Your task to perform on an android device: delete a single message in the gmail app Image 0: 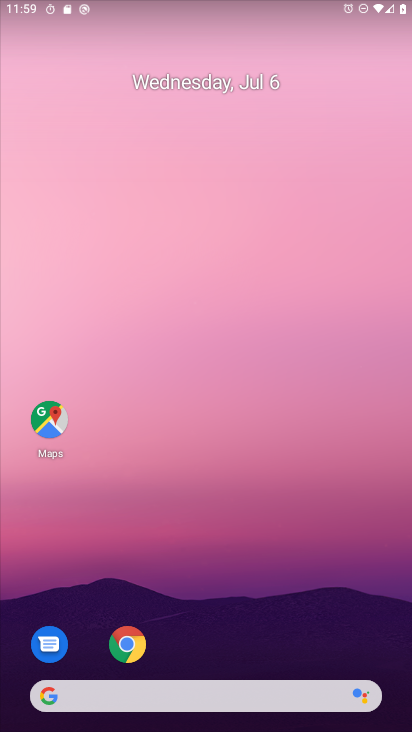
Step 0: drag from (206, 633) to (223, 166)
Your task to perform on an android device: delete a single message in the gmail app Image 1: 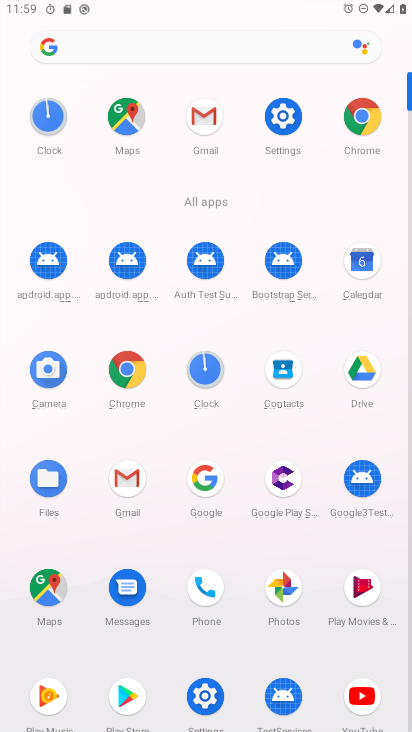
Step 1: click (196, 112)
Your task to perform on an android device: delete a single message in the gmail app Image 2: 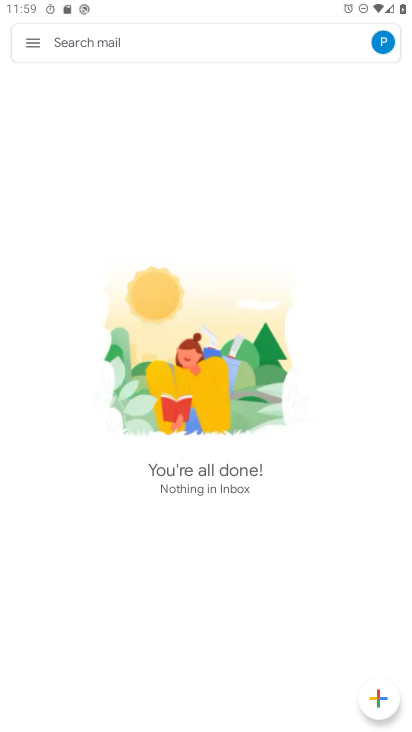
Step 2: press back button
Your task to perform on an android device: delete a single message in the gmail app Image 3: 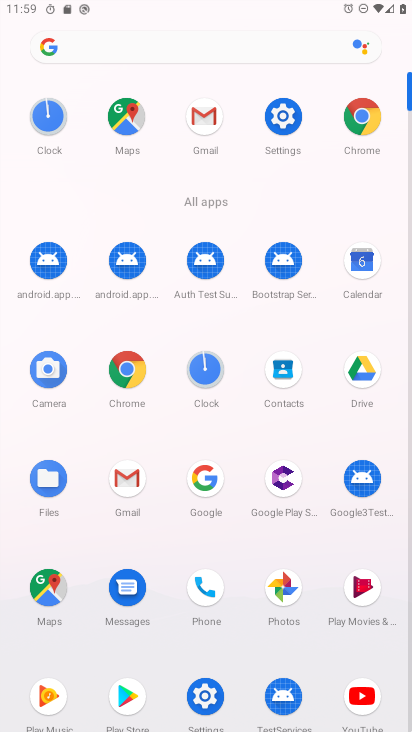
Step 3: click (204, 114)
Your task to perform on an android device: delete a single message in the gmail app Image 4: 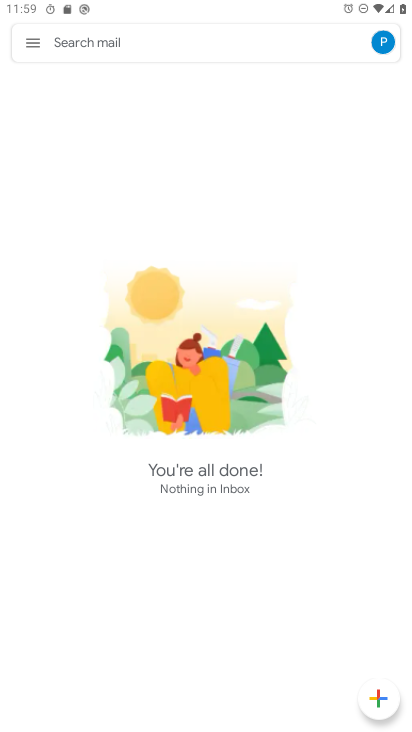
Step 4: click (30, 41)
Your task to perform on an android device: delete a single message in the gmail app Image 5: 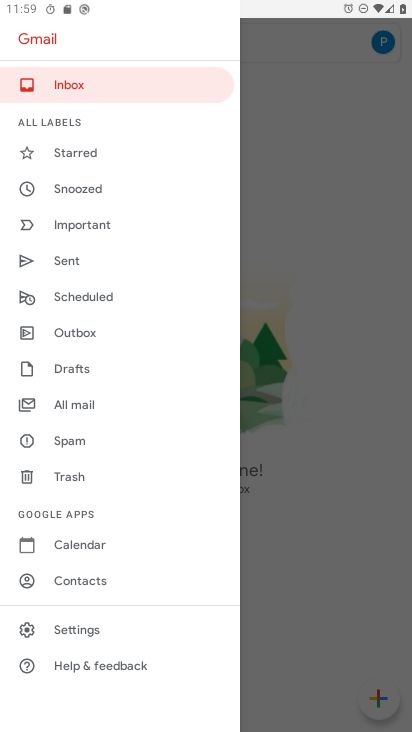
Step 5: click (72, 405)
Your task to perform on an android device: delete a single message in the gmail app Image 6: 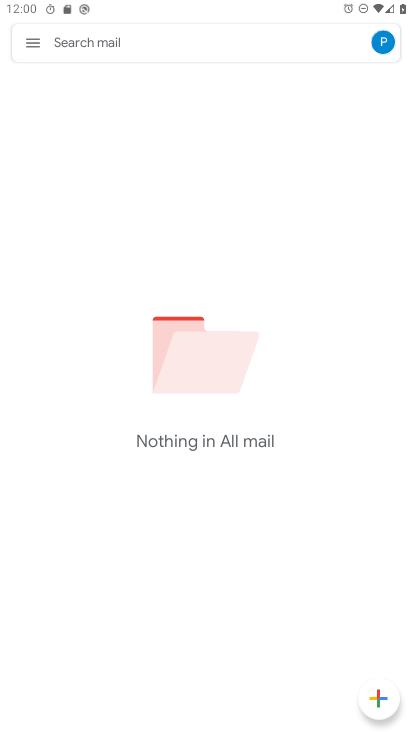
Step 6: task complete